Your task to perform on an android device: uninstall "Yahoo Mail" Image 0: 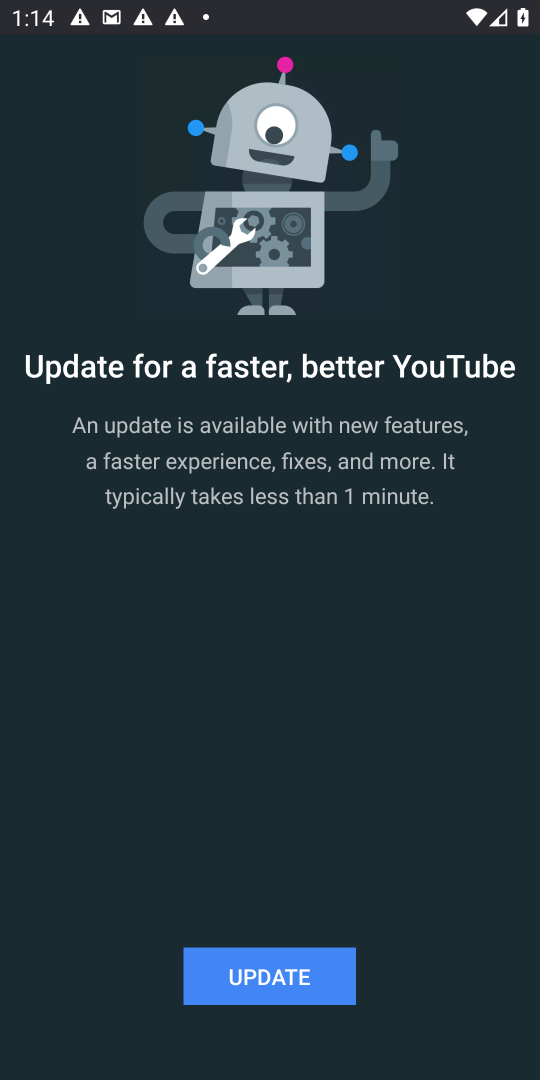
Step 0: press home button
Your task to perform on an android device: uninstall "Yahoo Mail" Image 1: 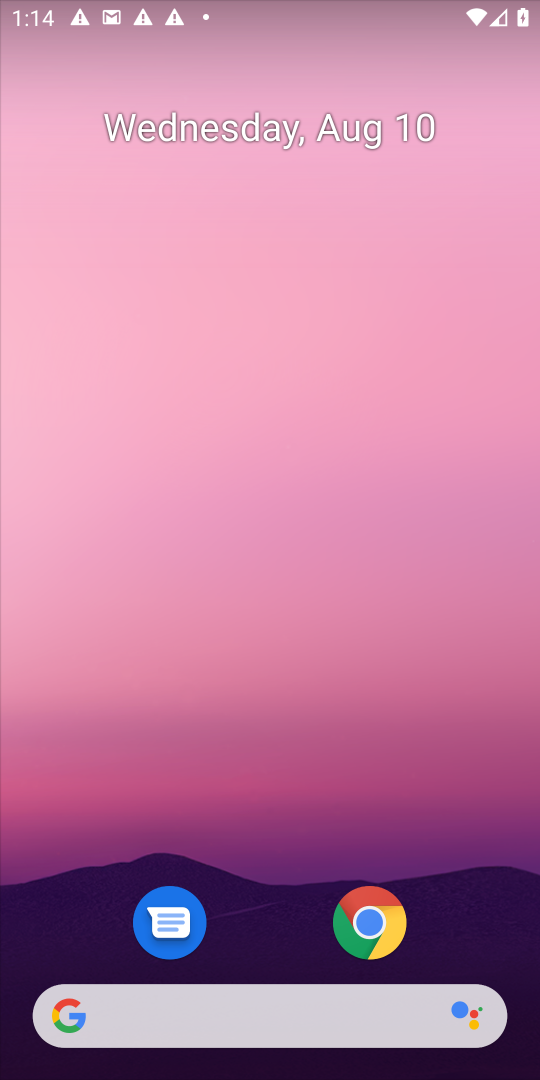
Step 1: drag from (224, 572) to (105, 64)
Your task to perform on an android device: uninstall "Yahoo Mail" Image 2: 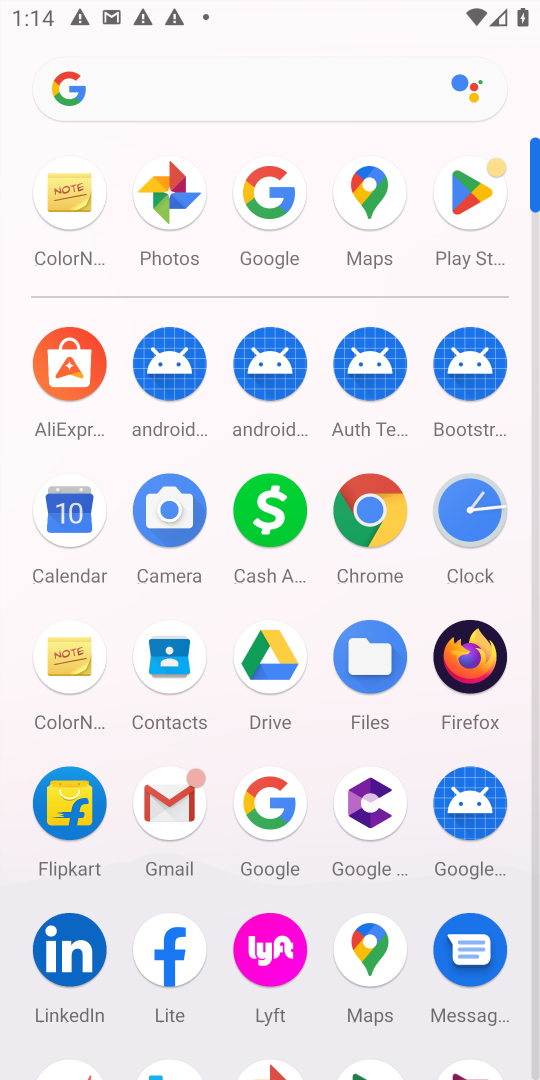
Step 2: click (470, 210)
Your task to perform on an android device: uninstall "Yahoo Mail" Image 3: 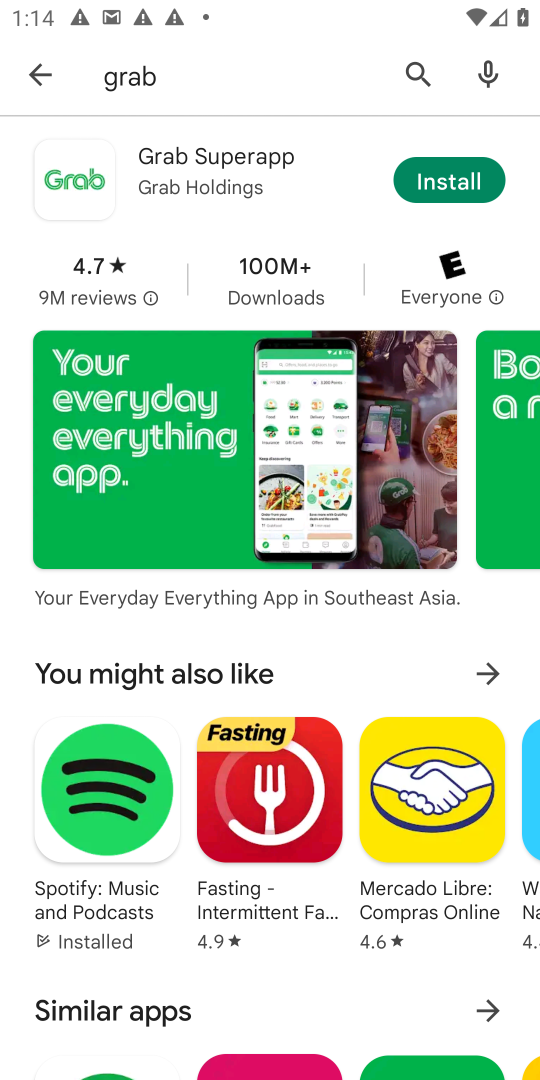
Step 3: click (36, 81)
Your task to perform on an android device: uninstall "Yahoo Mail" Image 4: 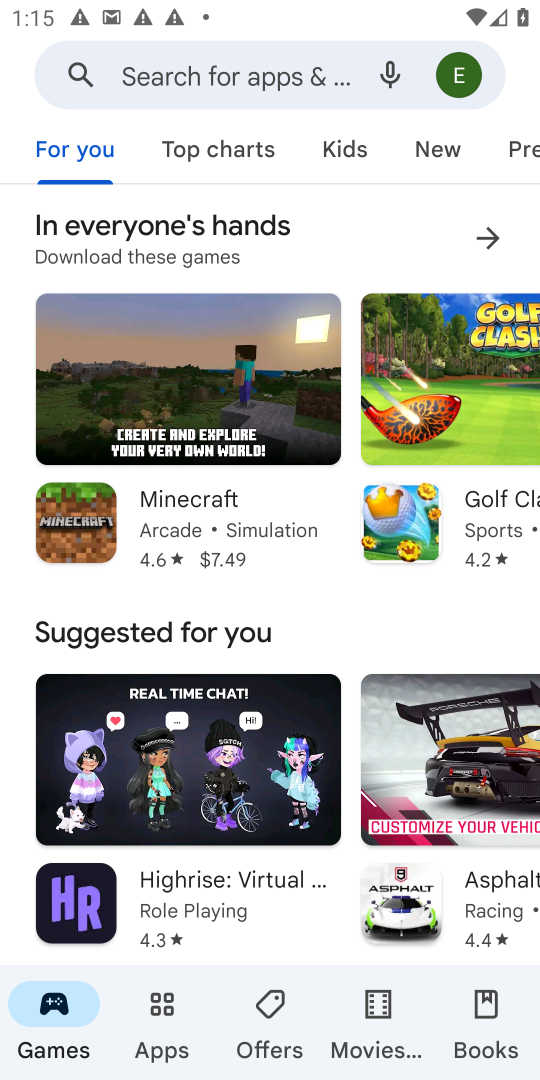
Step 4: click (238, 86)
Your task to perform on an android device: uninstall "Yahoo Mail" Image 5: 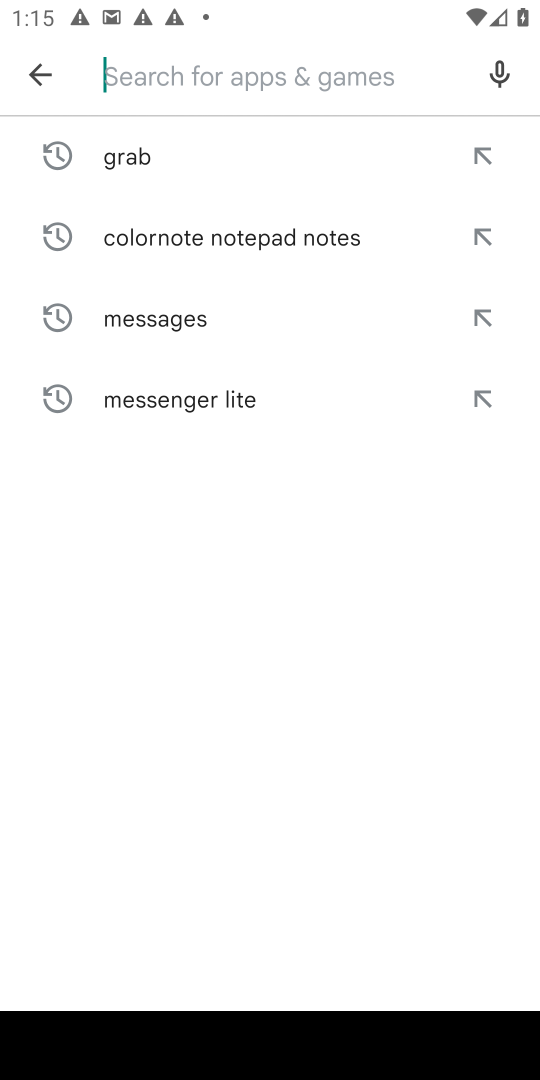
Step 5: type "Yahoo Mail"
Your task to perform on an android device: uninstall "Yahoo Mail" Image 6: 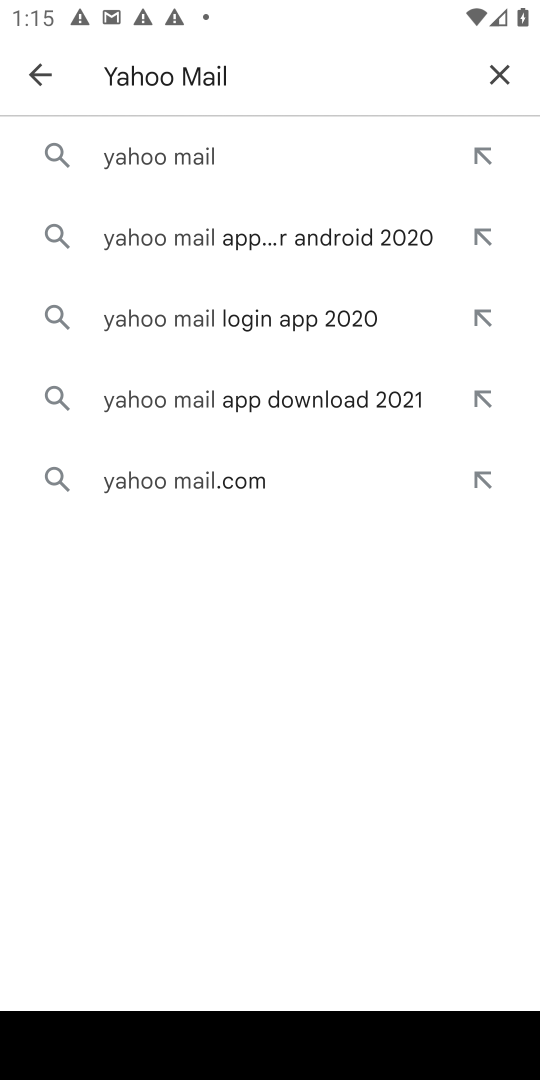
Step 6: click (174, 149)
Your task to perform on an android device: uninstall "Yahoo Mail" Image 7: 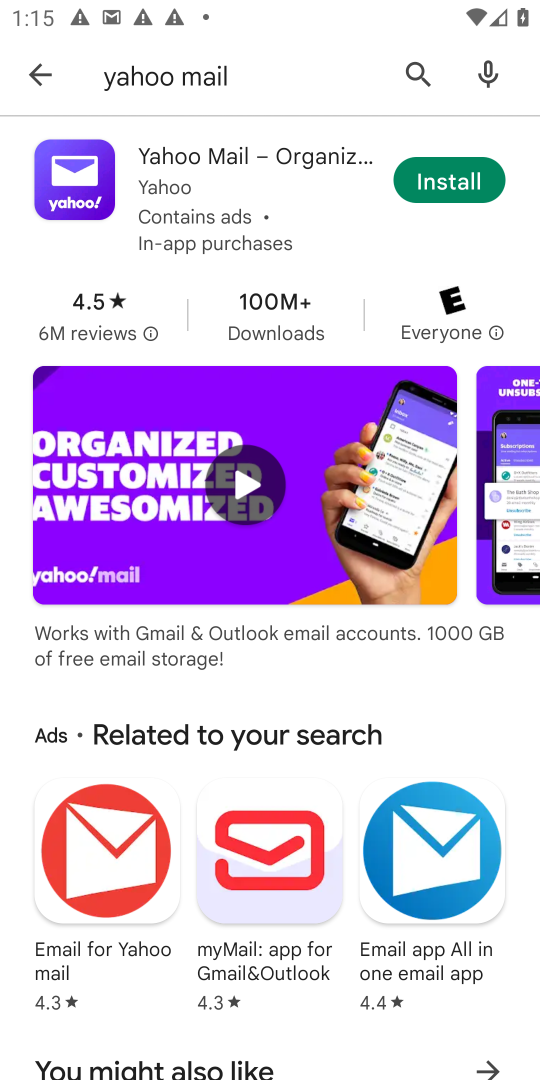
Step 7: click (447, 173)
Your task to perform on an android device: uninstall "Yahoo Mail" Image 8: 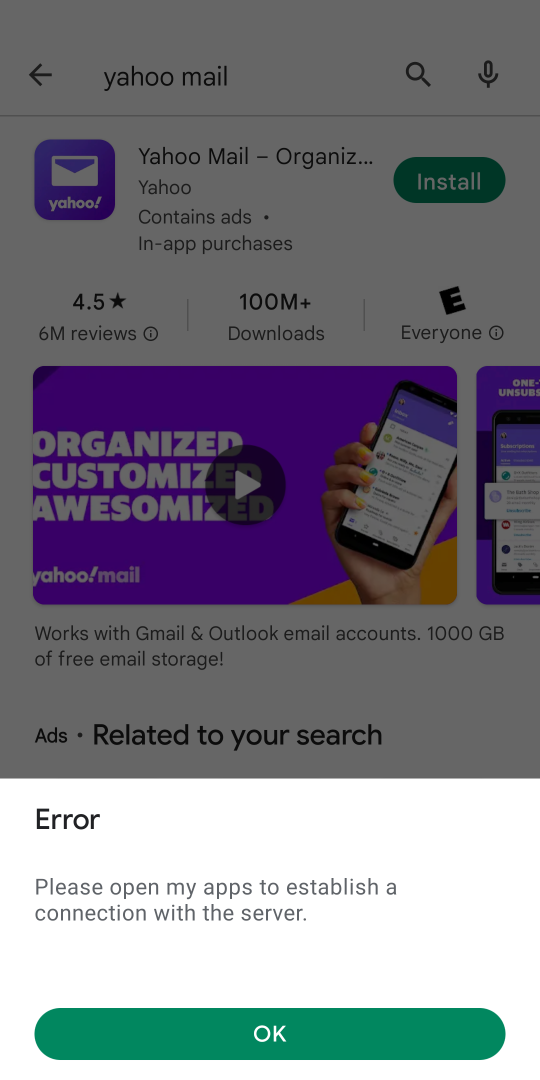
Step 8: click (266, 1040)
Your task to perform on an android device: uninstall "Yahoo Mail" Image 9: 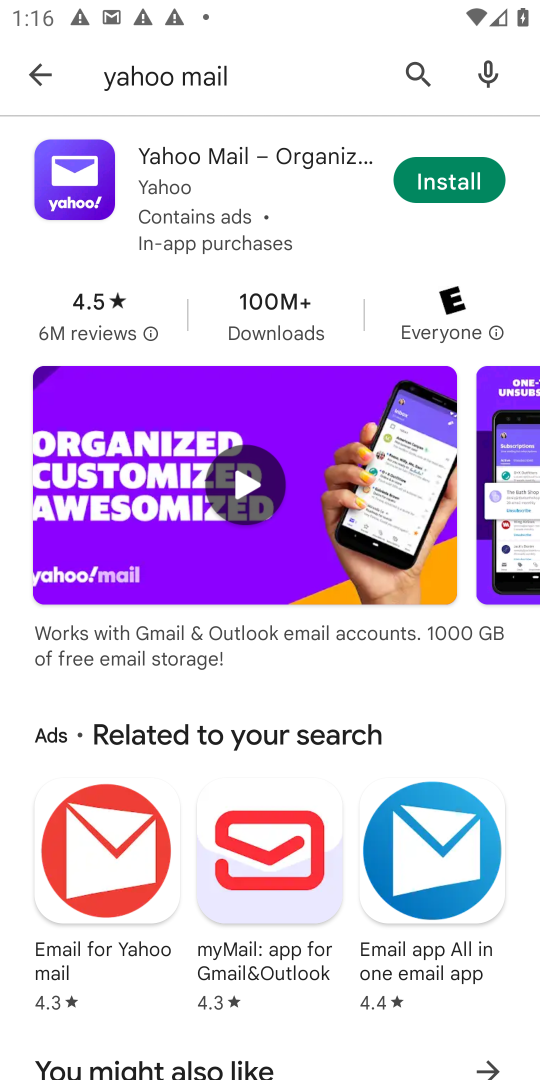
Step 9: task complete